Your task to perform on an android device: Open the map Image 0: 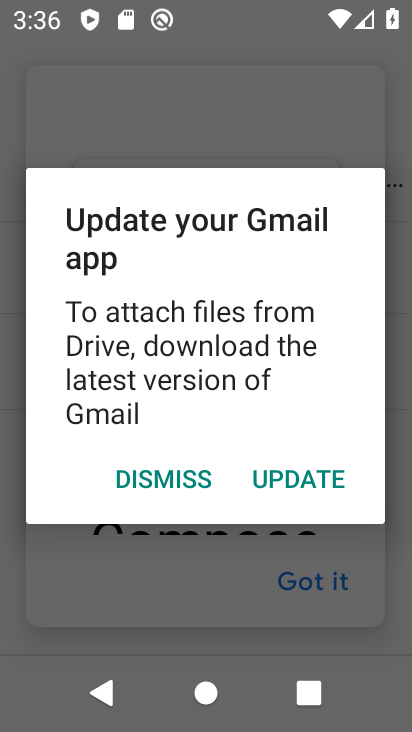
Step 0: press home button
Your task to perform on an android device: Open the map Image 1: 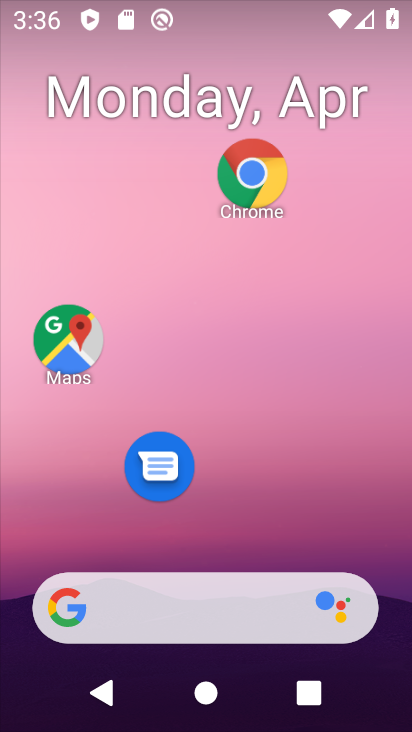
Step 1: click (54, 341)
Your task to perform on an android device: Open the map Image 2: 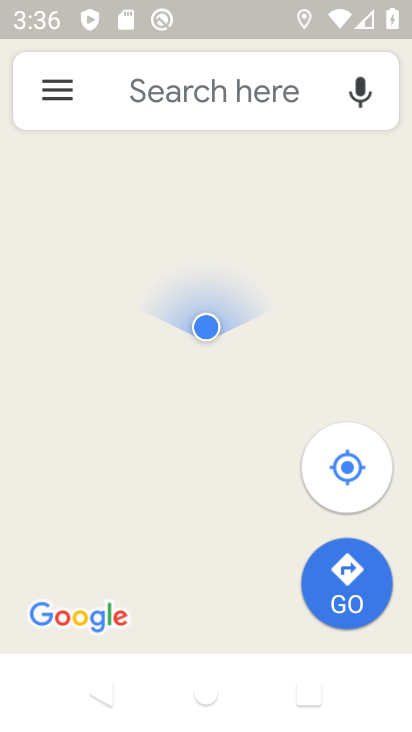
Step 2: task complete